Your task to perform on an android device: change alarm snooze length Image 0: 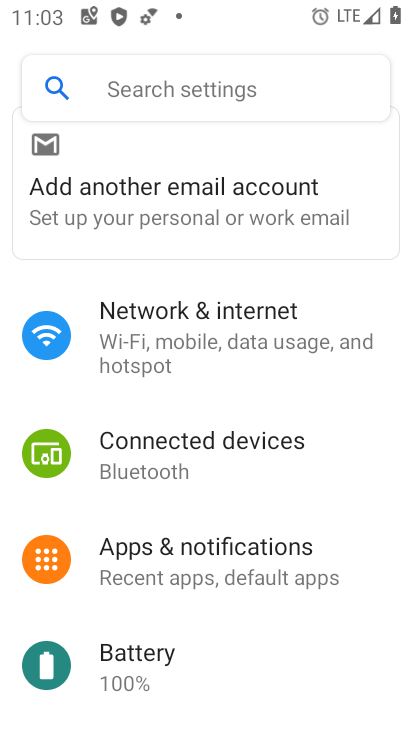
Step 0: press home button
Your task to perform on an android device: change alarm snooze length Image 1: 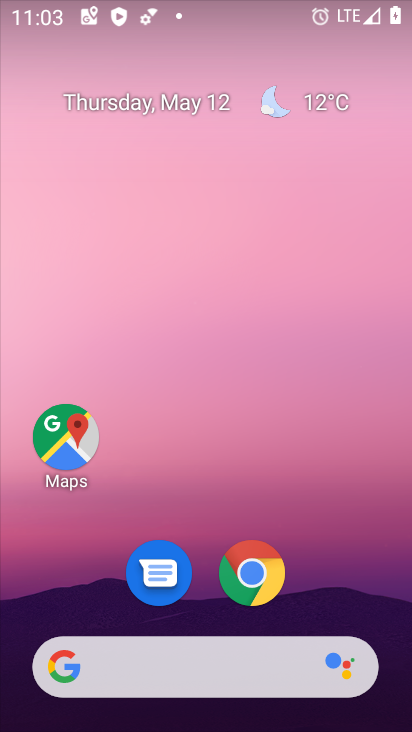
Step 1: drag from (254, 716) to (244, 16)
Your task to perform on an android device: change alarm snooze length Image 2: 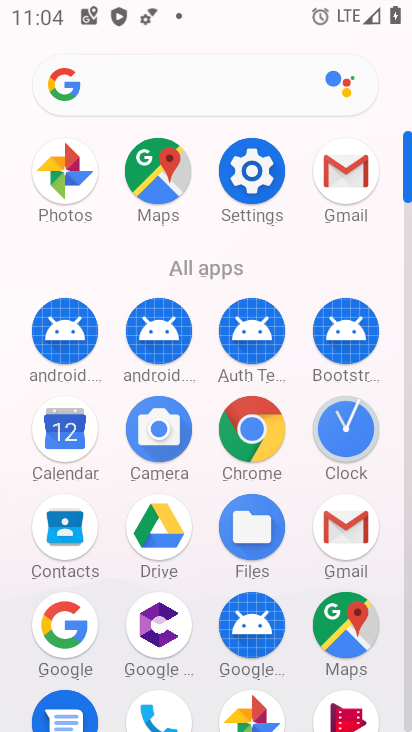
Step 2: click (361, 440)
Your task to perform on an android device: change alarm snooze length Image 3: 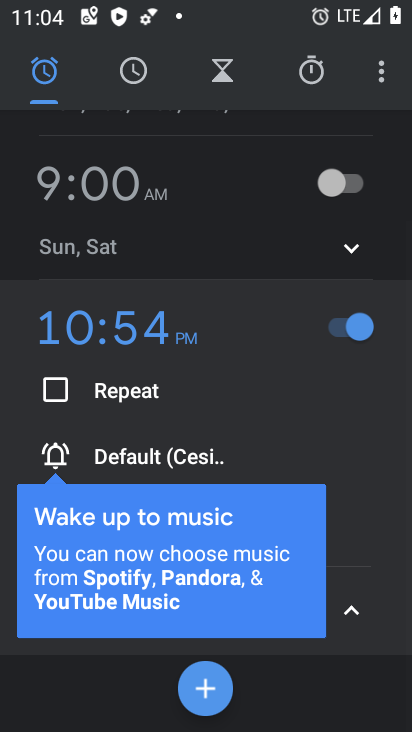
Step 3: click (385, 71)
Your task to perform on an android device: change alarm snooze length Image 4: 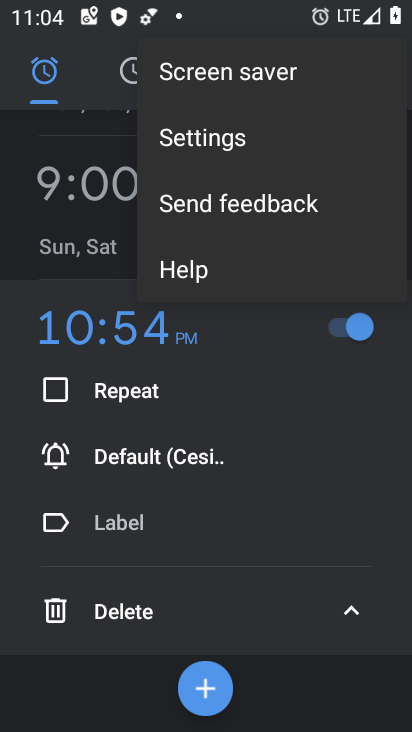
Step 4: click (227, 155)
Your task to perform on an android device: change alarm snooze length Image 5: 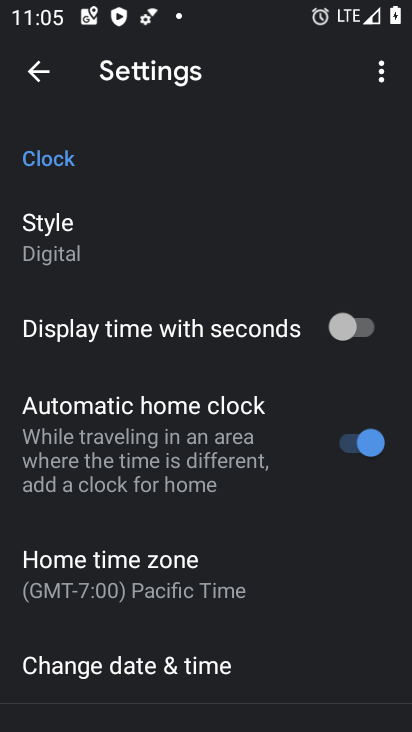
Step 5: drag from (288, 651) to (175, 226)
Your task to perform on an android device: change alarm snooze length Image 6: 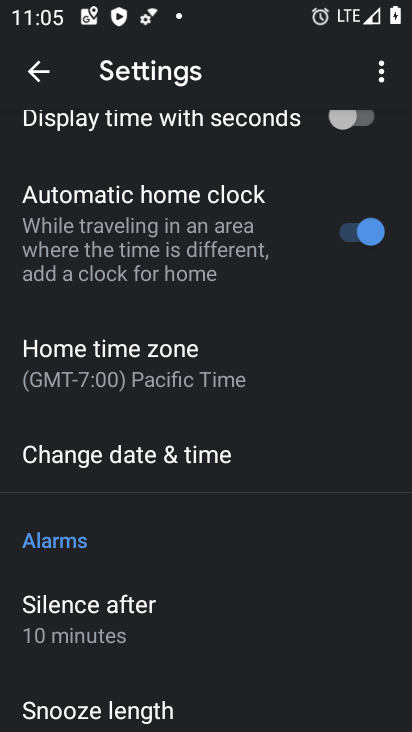
Step 6: click (83, 626)
Your task to perform on an android device: change alarm snooze length Image 7: 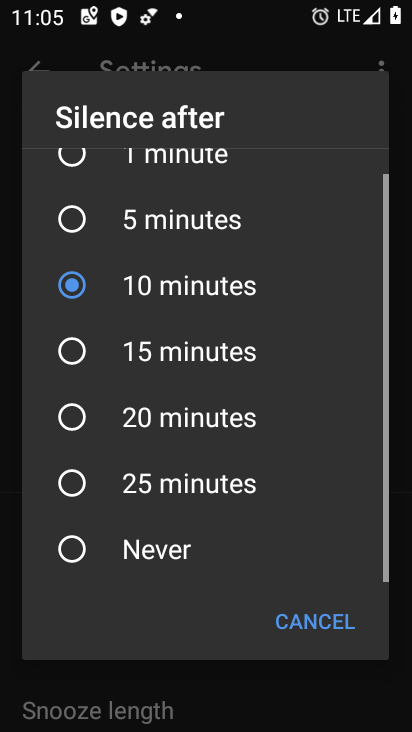
Step 7: click (207, 484)
Your task to perform on an android device: change alarm snooze length Image 8: 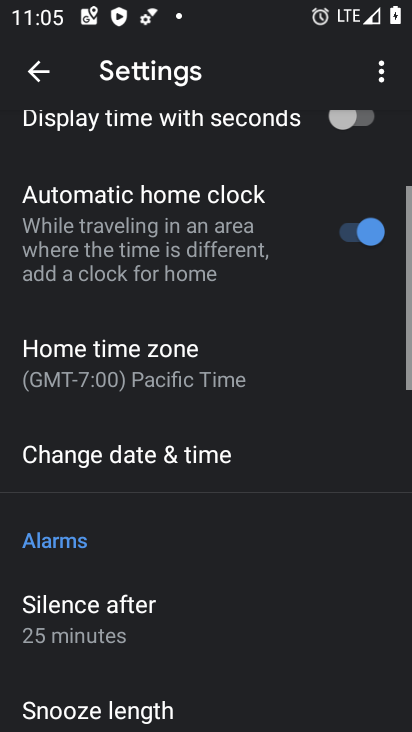
Step 8: task complete